Your task to perform on an android device: change alarm snooze length Image 0: 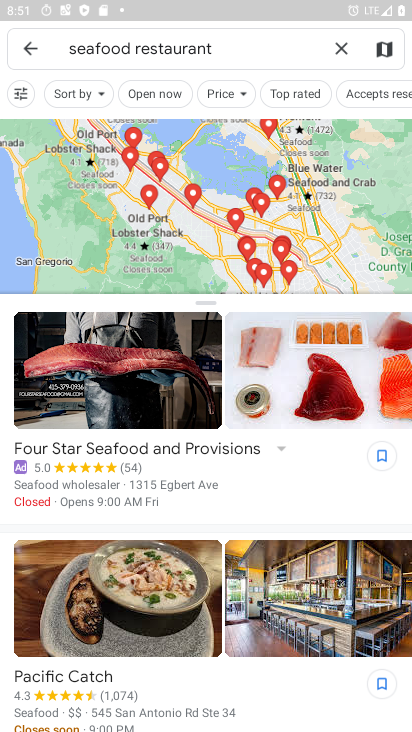
Step 0: press home button
Your task to perform on an android device: change alarm snooze length Image 1: 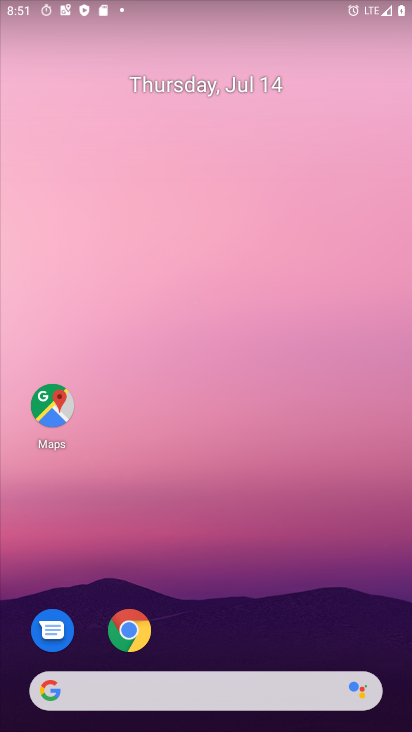
Step 1: drag from (230, 723) to (235, 68)
Your task to perform on an android device: change alarm snooze length Image 2: 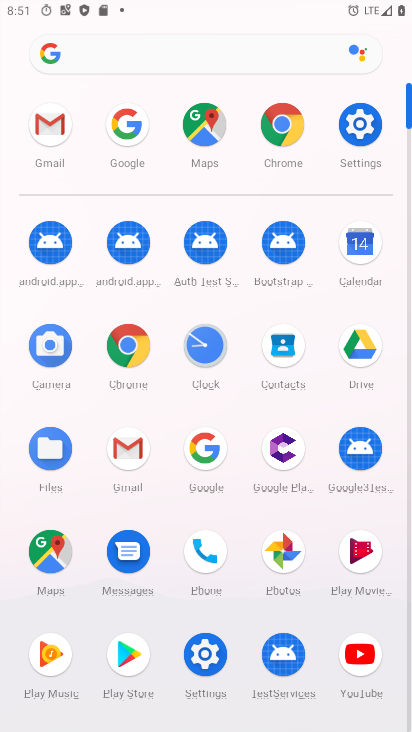
Step 2: click (198, 343)
Your task to perform on an android device: change alarm snooze length Image 3: 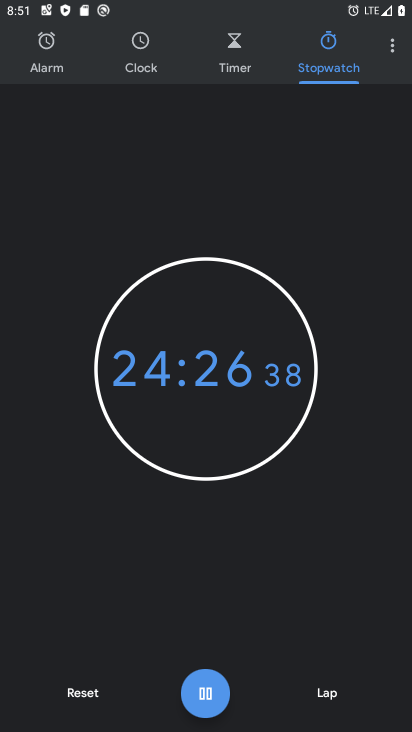
Step 3: click (391, 52)
Your task to perform on an android device: change alarm snooze length Image 4: 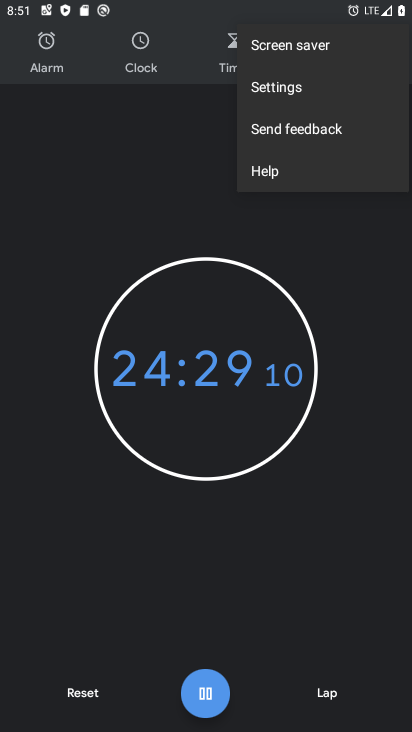
Step 4: click (270, 86)
Your task to perform on an android device: change alarm snooze length Image 5: 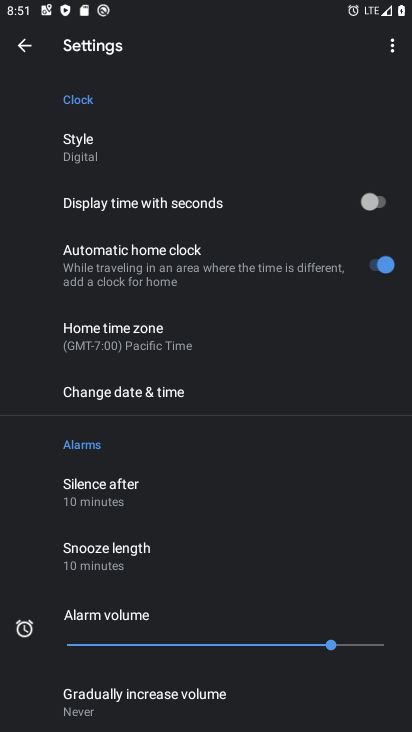
Step 5: click (89, 562)
Your task to perform on an android device: change alarm snooze length Image 6: 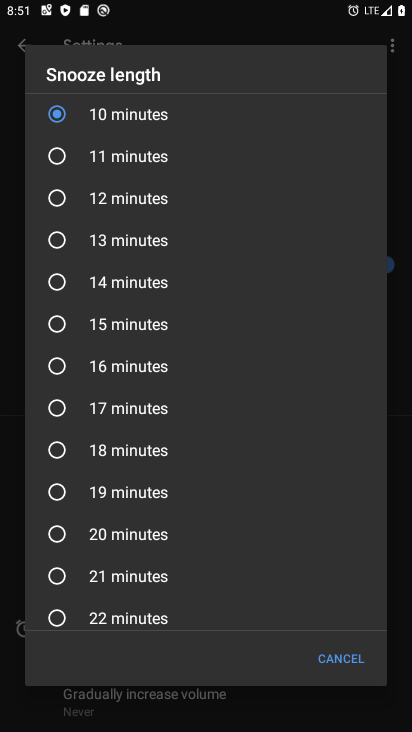
Step 6: click (62, 493)
Your task to perform on an android device: change alarm snooze length Image 7: 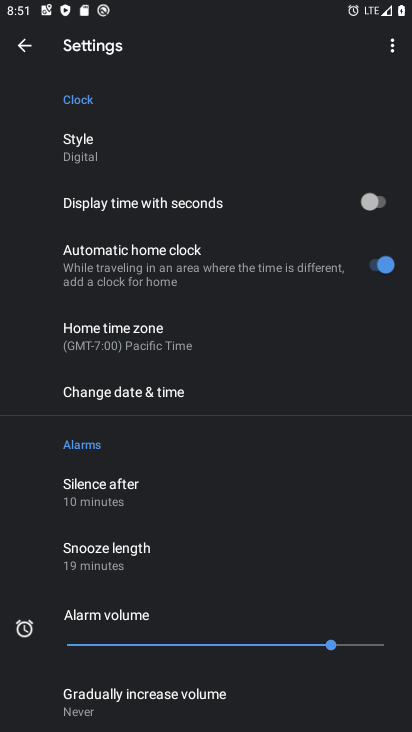
Step 7: task complete